Your task to perform on an android device: find which apps use the phone's location Image 0: 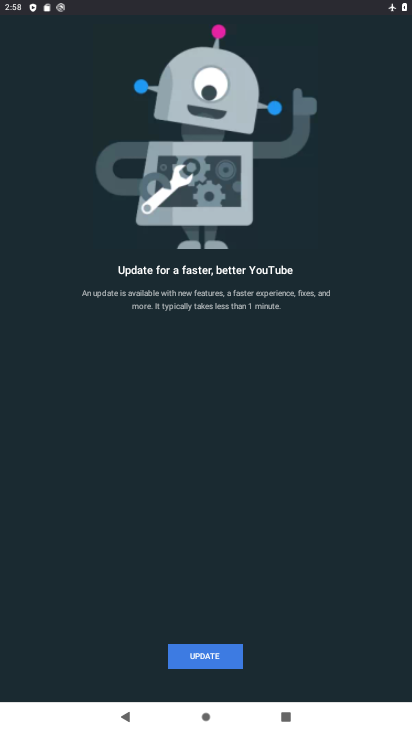
Step 0: press home button
Your task to perform on an android device: find which apps use the phone's location Image 1: 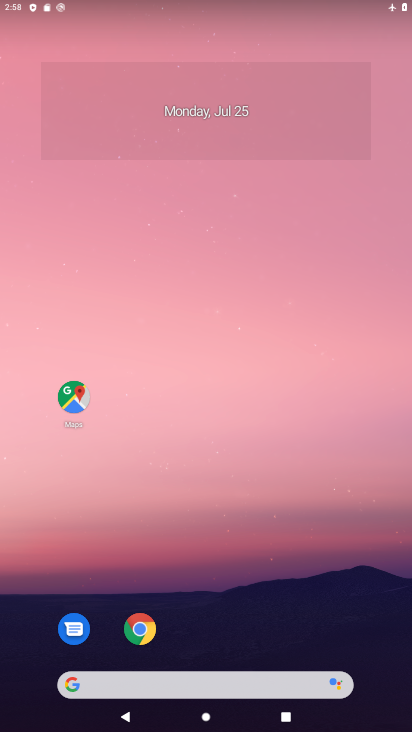
Step 1: drag from (207, 651) to (169, 33)
Your task to perform on an android device: find which apps use the phone's location Image 2: 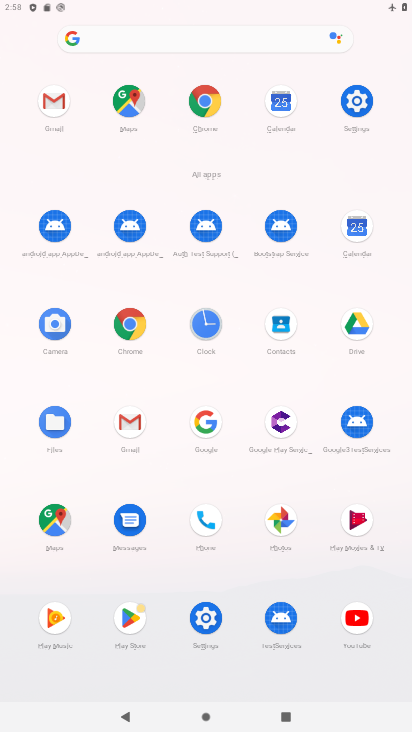
Step 2: click (361, 106)
Your task to perform on an android device: find which apps use the phone's location Image 3: 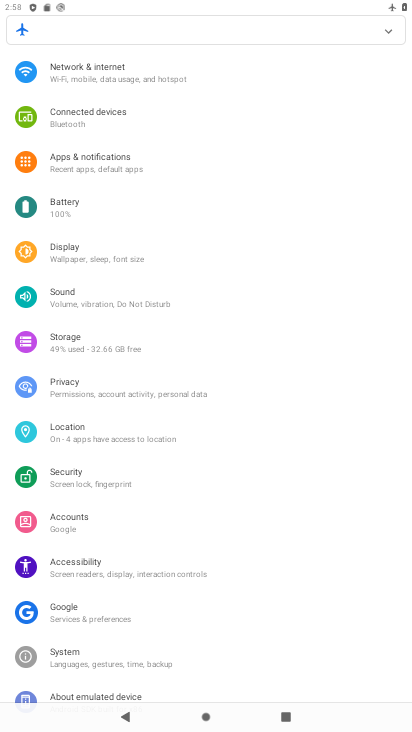
Step 3: click (47, 436)
Your task to perform on an android device: find which apps use the phone's location Image 4: 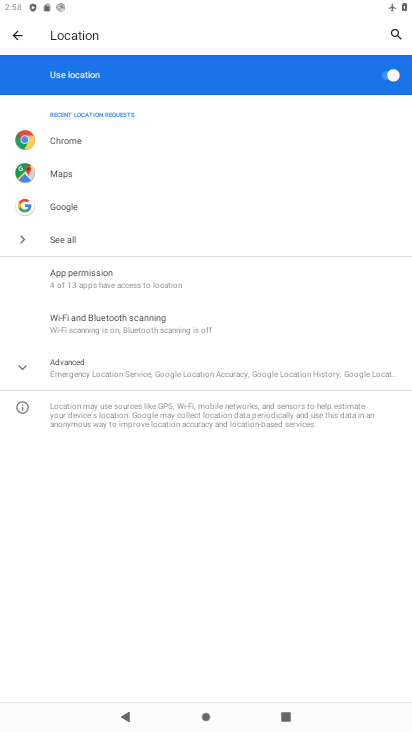
Step 4: click (66, 281)
Your task to perform on an android device: find which apps use the phone's location Image 5: 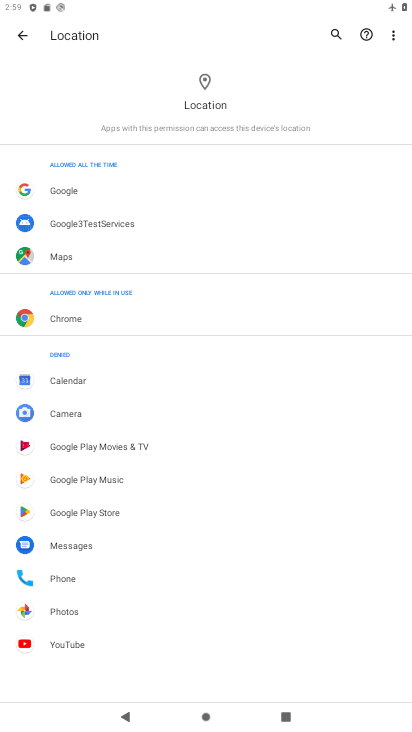
Step 5: task complete